Your task to perform on an android device: snooze an email in the gmail app Image 0: 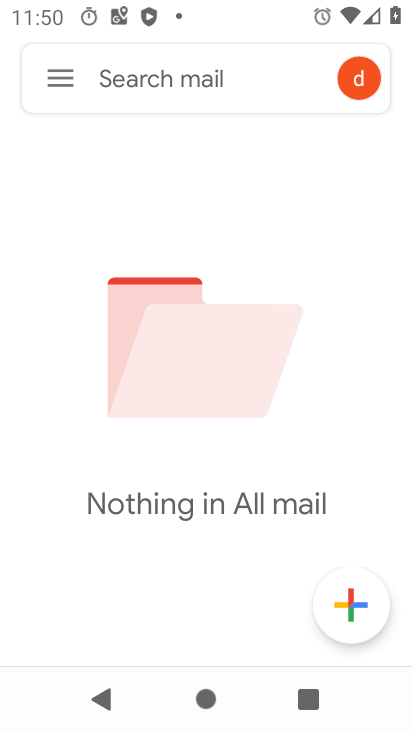
Step 0: task impossible